Your task to perform on an android device: open wifi settings Image 0: 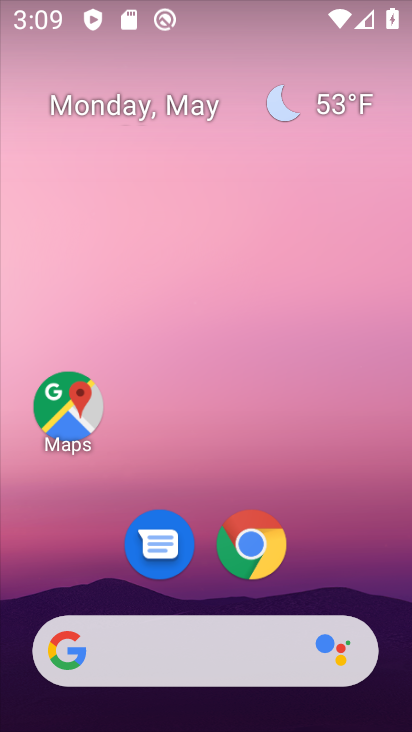
Step 0: drag from (142, 718) to (125, 57)
Your task to perform on an android device: open wifi settings Image 1: 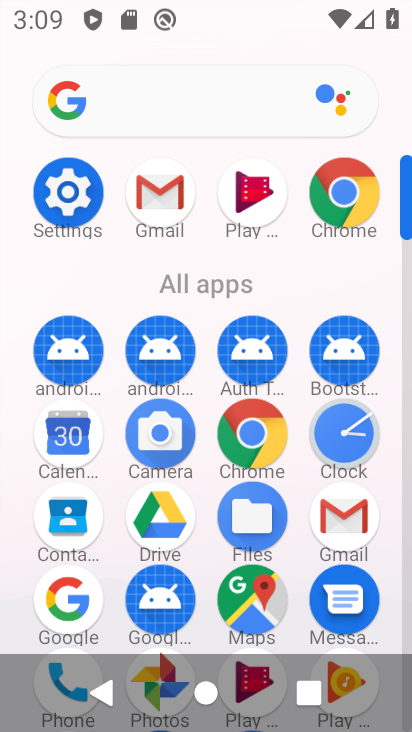
Step 1: click (61, 215)
Your task to perform on an android device: open wifi settings Image 2: 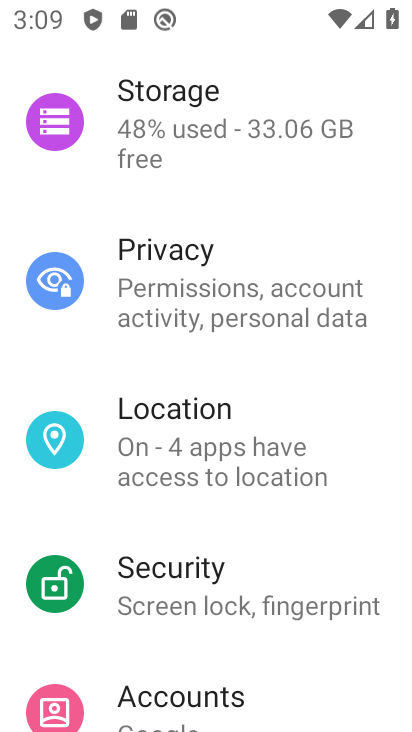
Step 2: drag from (238, 157) to (212, 730)
Your task to perform on an android device: open wifi settings Image 3: 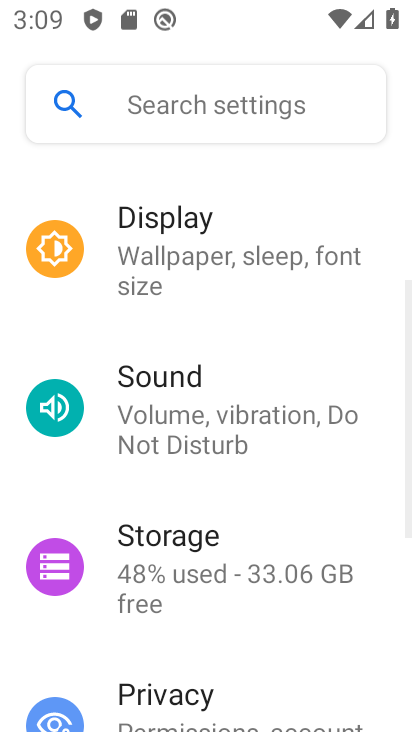
Step 3: drag from (219, 204) to (220, 727)
Your task to perform on an android device: open wifi settings Image 4: 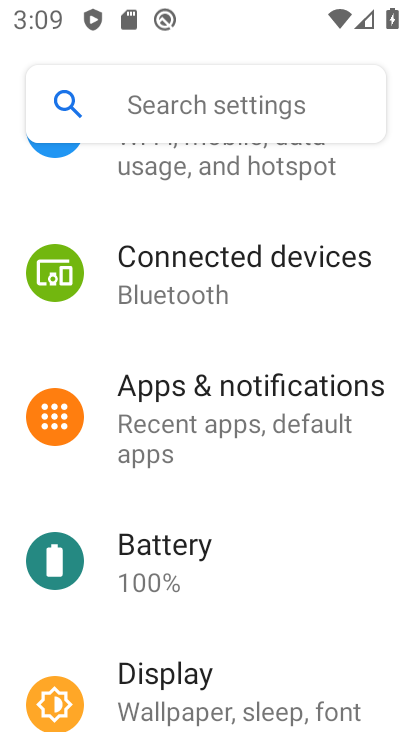
Step 4: drag from (247, 236) to (225, 708)
Your task to perform on an android device: open wifi settings Image 5: 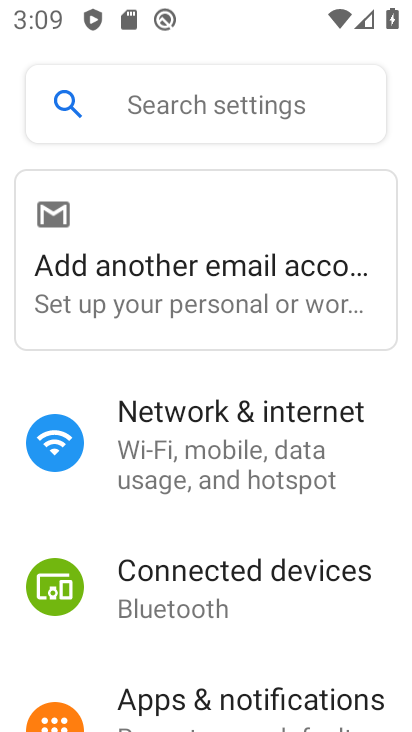
Step 5: click (198, 476)
Your task to perform on an android device: open wifi settings Image 6: 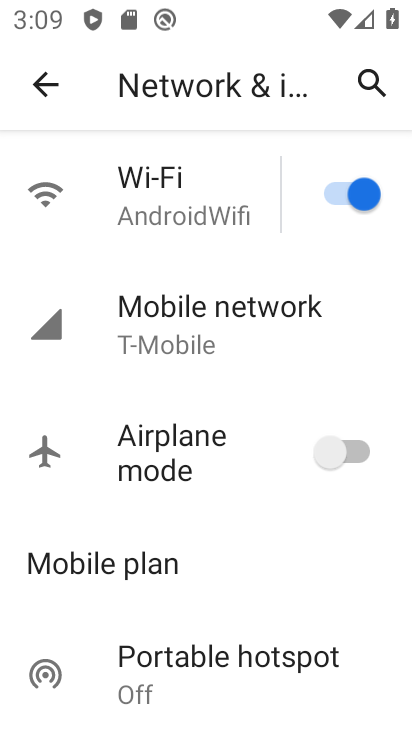
Step 6: click (190, 211)
Your task to perform on an android device: open wifi settings Image 7: 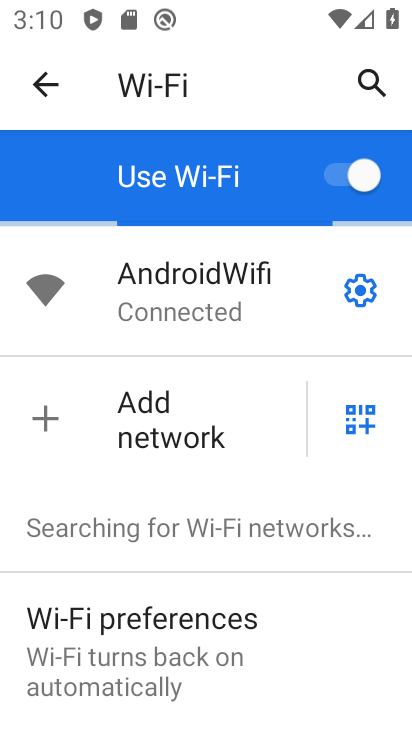
Step 7: task complete